Your task to perform on an android device: toggle show notifications on the lock screen Image 0: 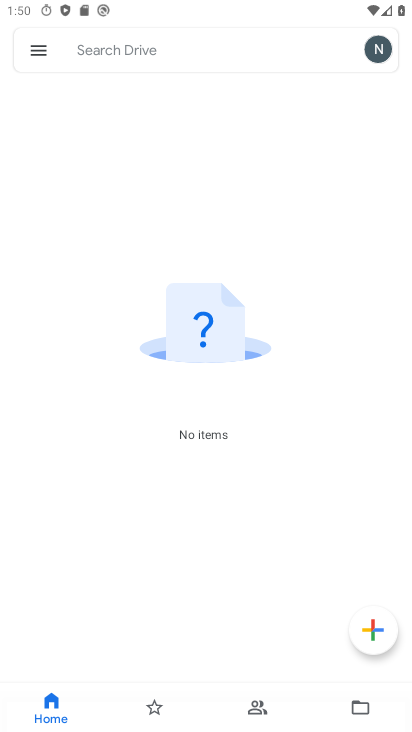
Step 0: press home button
Your task to perform on an android device: toggle show notifications on the lock screen Image 1: 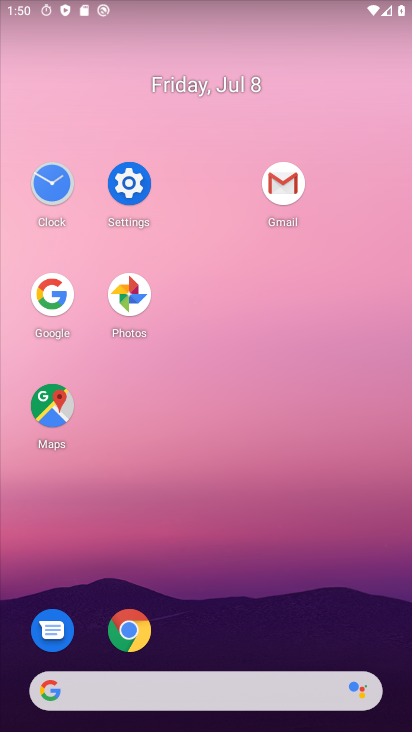
Step 1: click (136, 166)
Your task to perform on an android device: toggle show notifications on the lock screen Image 2: 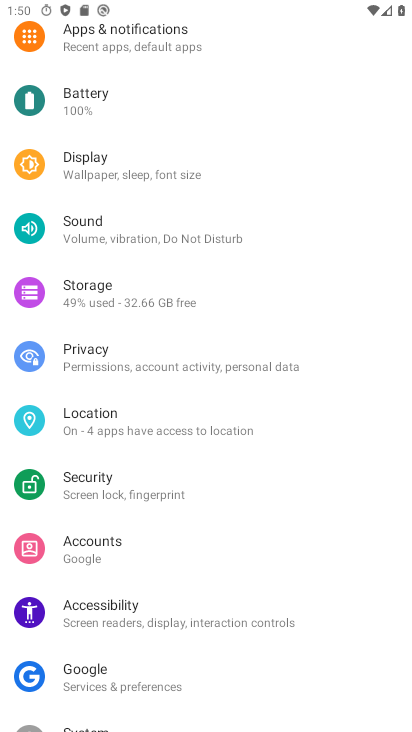
Step 2: drag from (237, 542) to (211, 281)
Your task to perform on an android device: toggle show notifications on the lock screen Image 3: 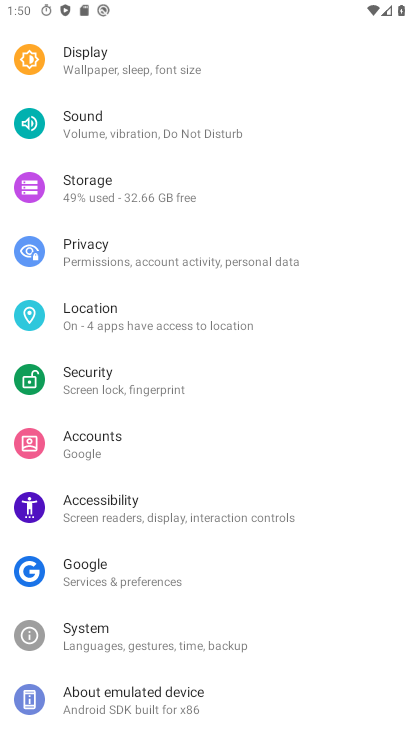
Step 3: drag from (264, 246) to (300, 696)
Your task to perform on an android device: toggle show notifications on the lock screen Image 4: 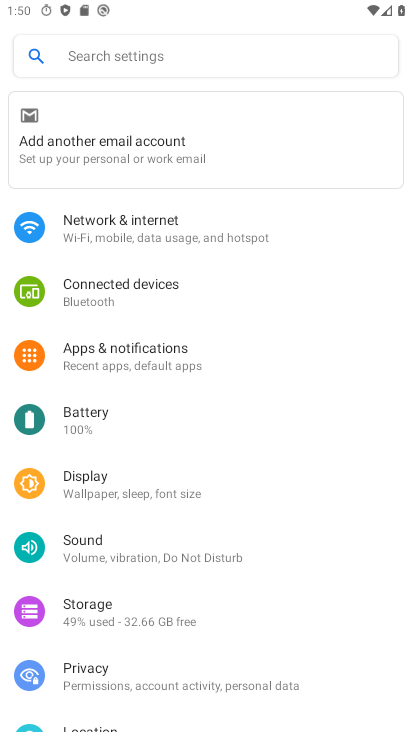
Step 4: drag from (275, 667) to (291, 393)
Your task to perform on an android device: toggle show notifications on the lock screen Image 5: 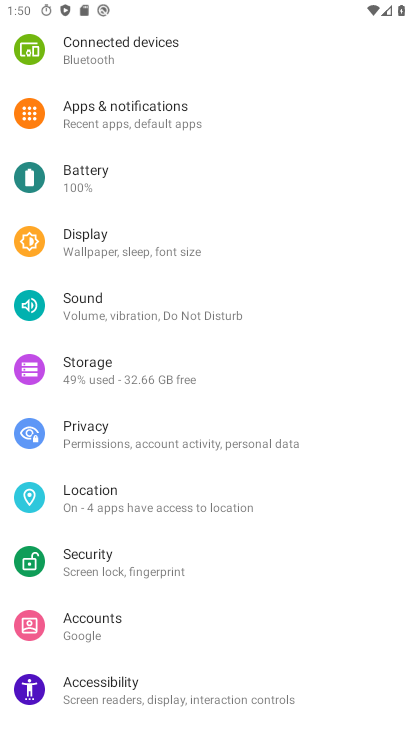
Step 5: click (226, 112)
Your task to perform on an android device: toggle show notifications on the lock screen Image 6: 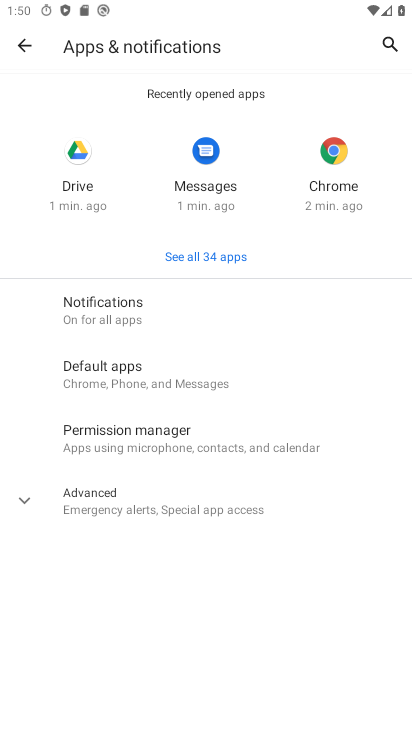
Step 6: click (199, 295)
Your task to perform on an android device: toggle show notifications on the lock screen Image 7: 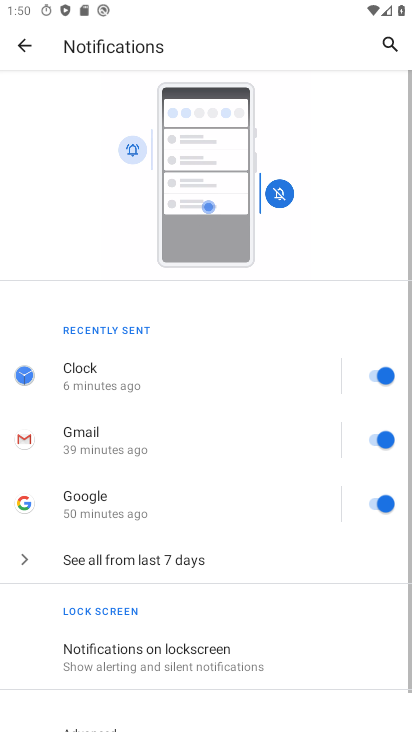
Step 7: drag from (233, 492) to (261, 153)
Your task to perform on an android device: toggle show notifications on the lock screen Image 8: 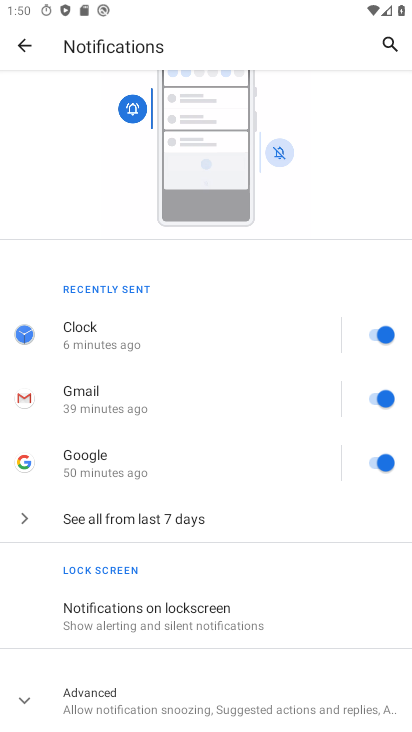
Step 8: click (200, 609)
Your task to perform on an android device: toggle show notifications on the lock screen Image 9: 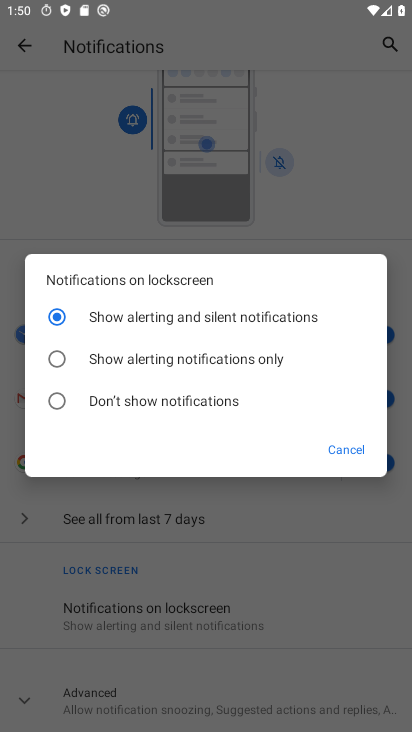
Step 9: click (254, 349)
Your task to perform on an android device: toggle show notifications on the lock screen Image 10: 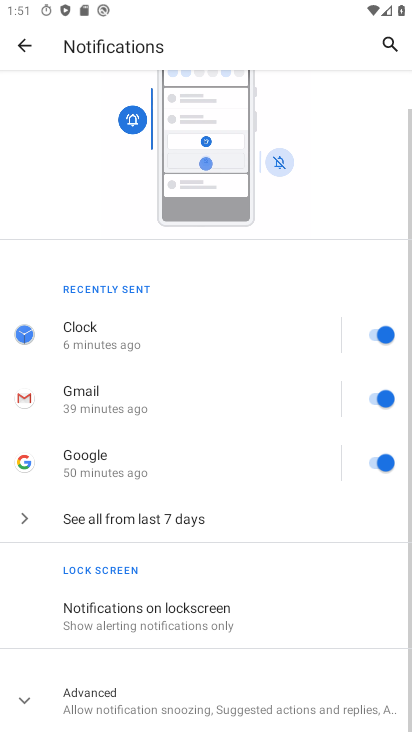
Step 10: task complete